Your task to perform on an android device: Go to Amazon Image 0: 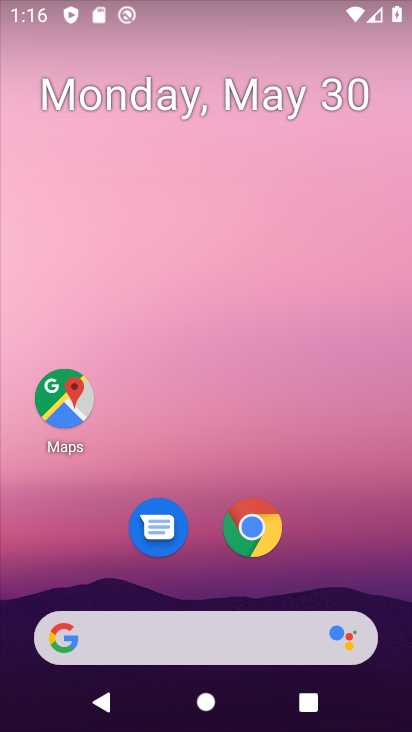
Step 0: click (268, 534)
Your task to perform on an android device: Go to Amazon Image 1: 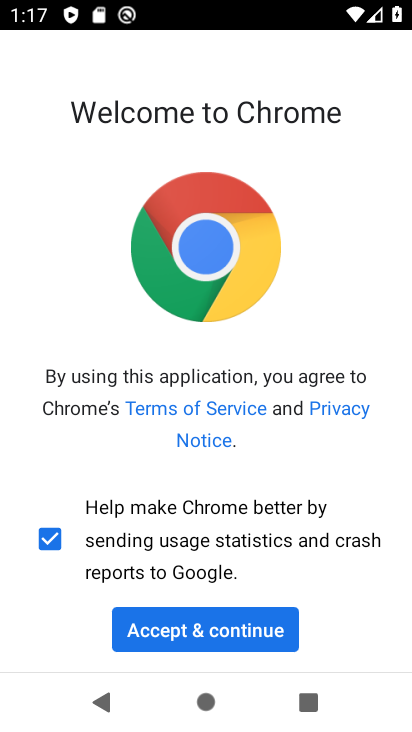
Step 1: click (249, 632)
Your task to perform on an android device: Go to Amazon Image 2: 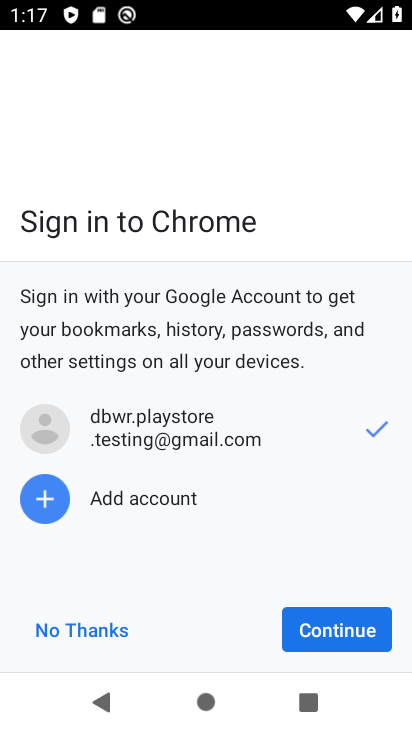
Step 2: click (314, 639)
Your task to perform on an android device: Go to Amazon Image 3: 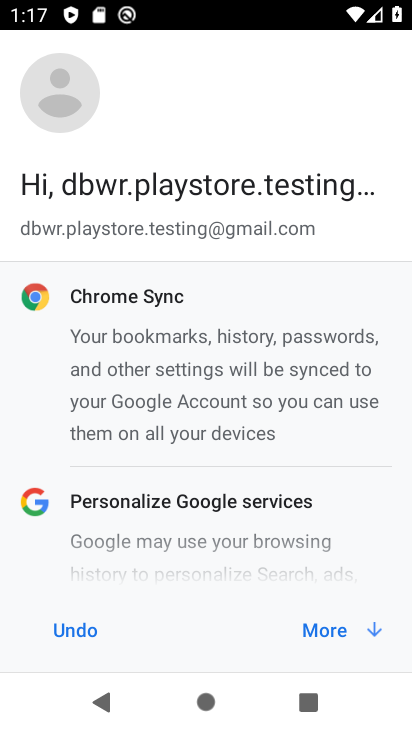
Step 3: click (336, 645)
Your task to perform on an android device: Go to Amazon Image 4: 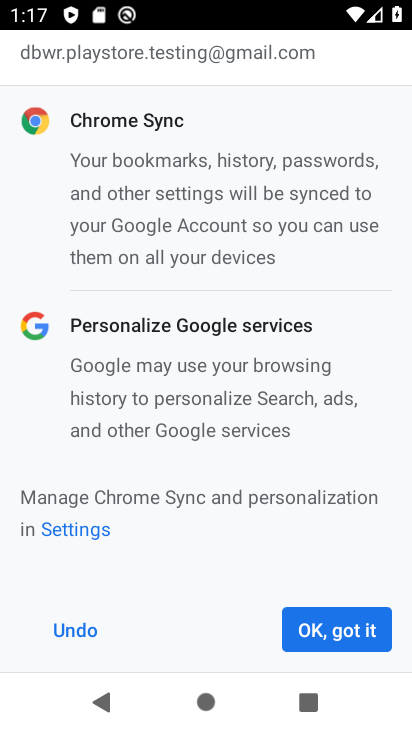
Step 4: click (339, 639)
Your task to perform on an android device: Go to Amazon Image 5: 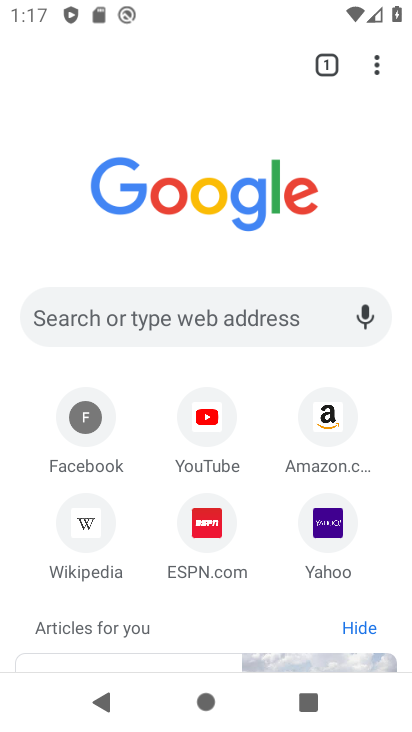
Step 5: click (328, 442)
Your task to perform on an android device: Go to Amazon Image 6: 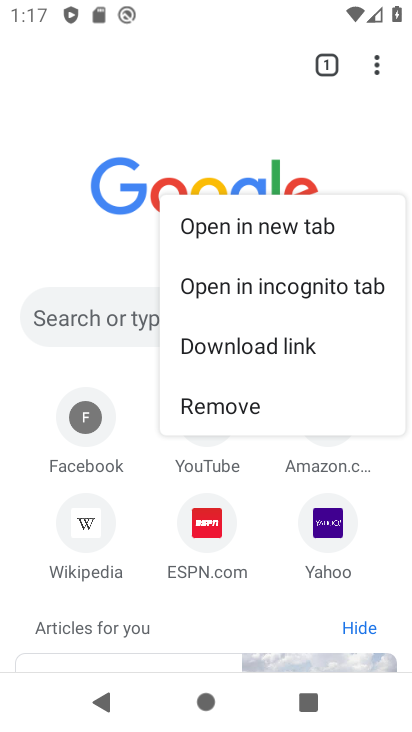
Step 6: click (328, 442)
Your task to perform on an android device: Go to Amazon Image 7: 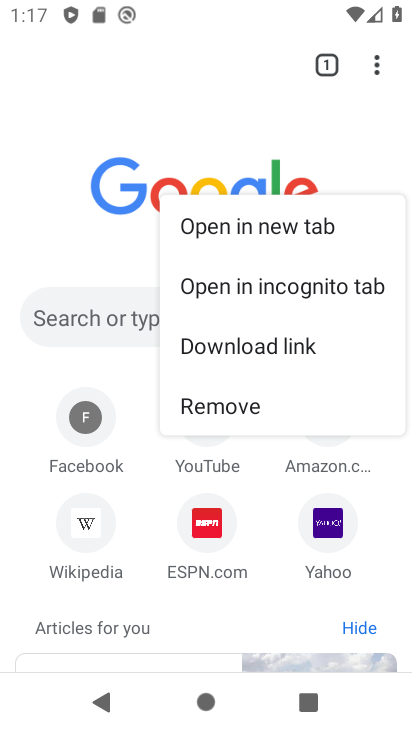
Step 7: click (325, 453)
Your task to perform on an android device: Go to Amazon Image 8: 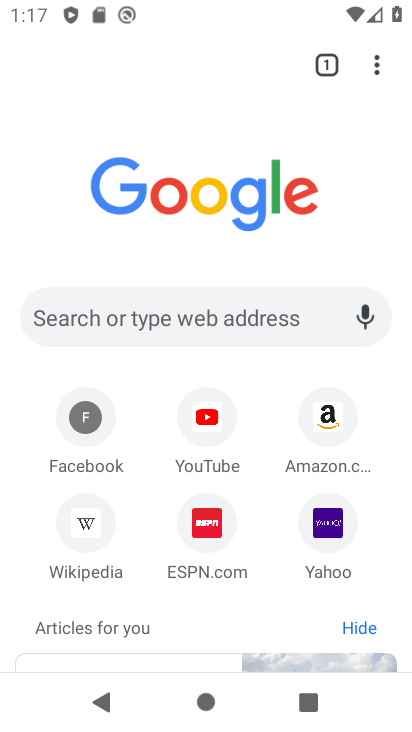
Step 8: click (334, 438)
Your task to perform on an android device: Go to Amazon Image 9: 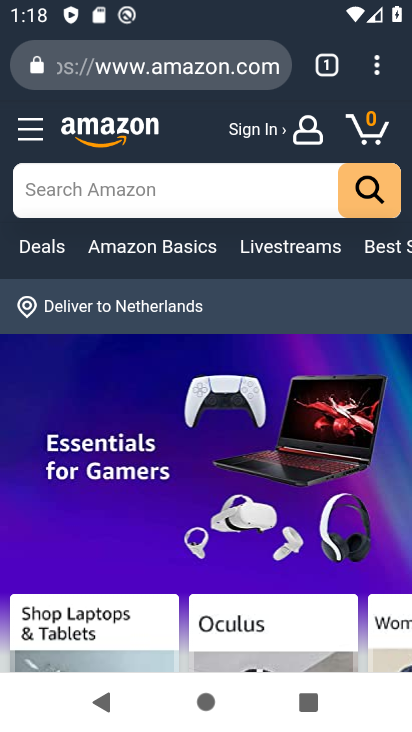
Step 9: task complete